Your task to perform on an android device: Go to wifi settings Image 0: 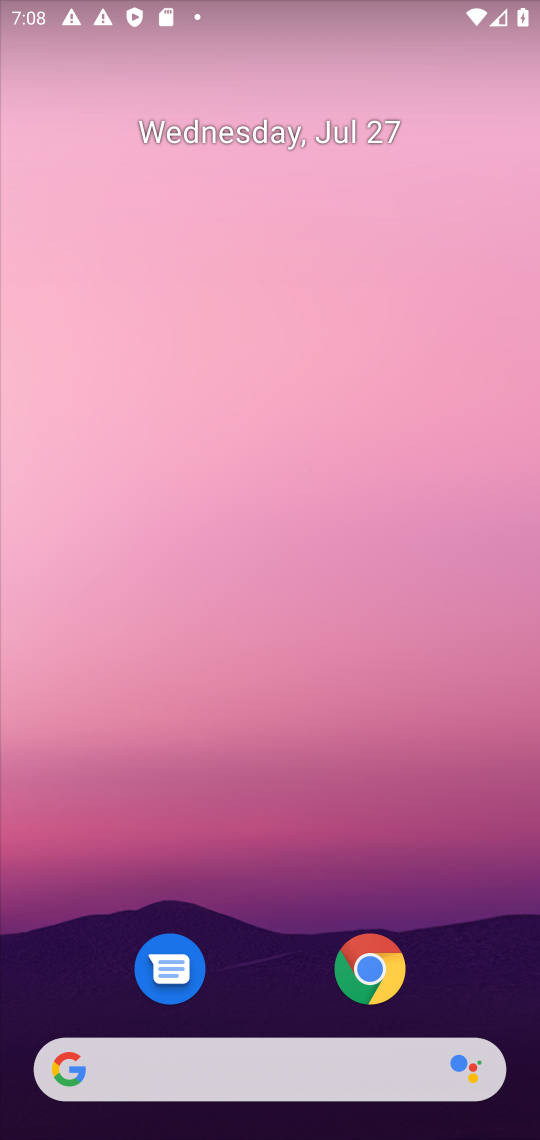
Step 0: drag from (326, 884) to (294, 81)
Your task to perform on an android device: Go to wifi settings Image 1: 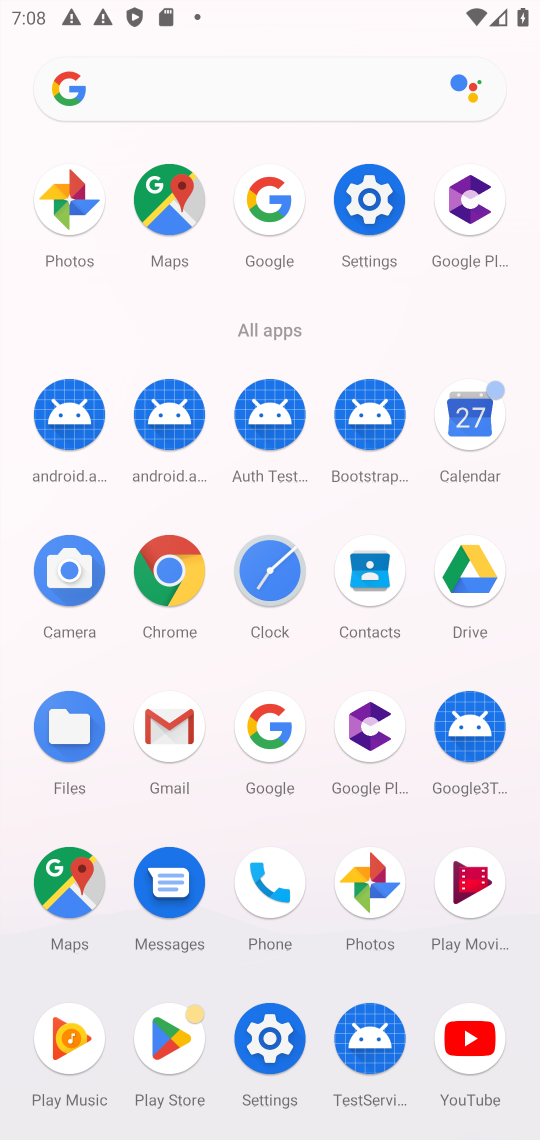
Step 1: click (285, 1042)
Your task to perform on an android device: Go to wifi settings Image 2: 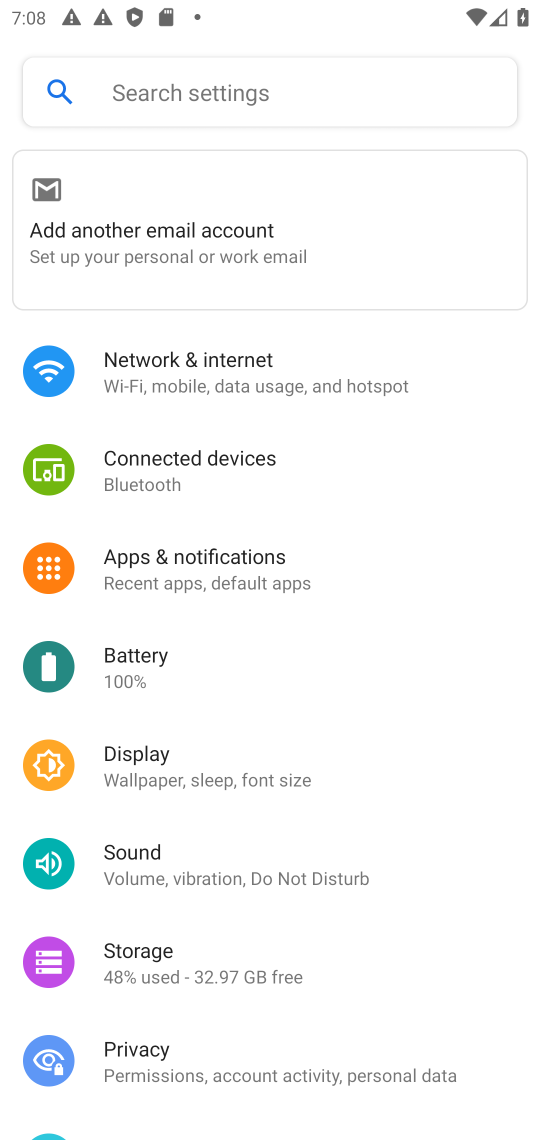
Step 2: click (193, 394)
Your task to perform on an android device: Go to wifi settings Image 3: 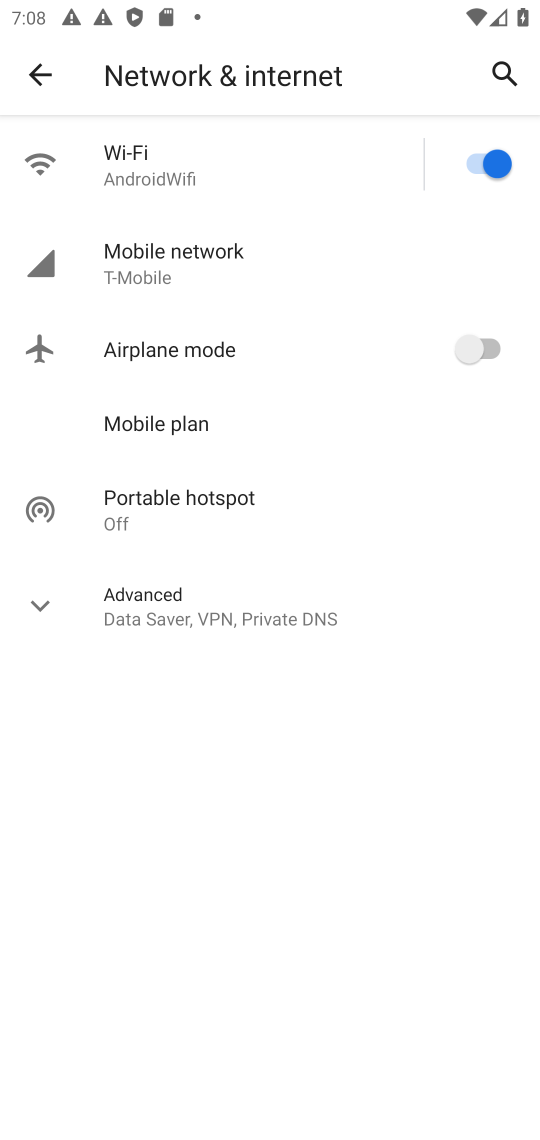
Step 3: click (186, 198)
Your task to perform on an android device: Go to wifi settings Image 4: 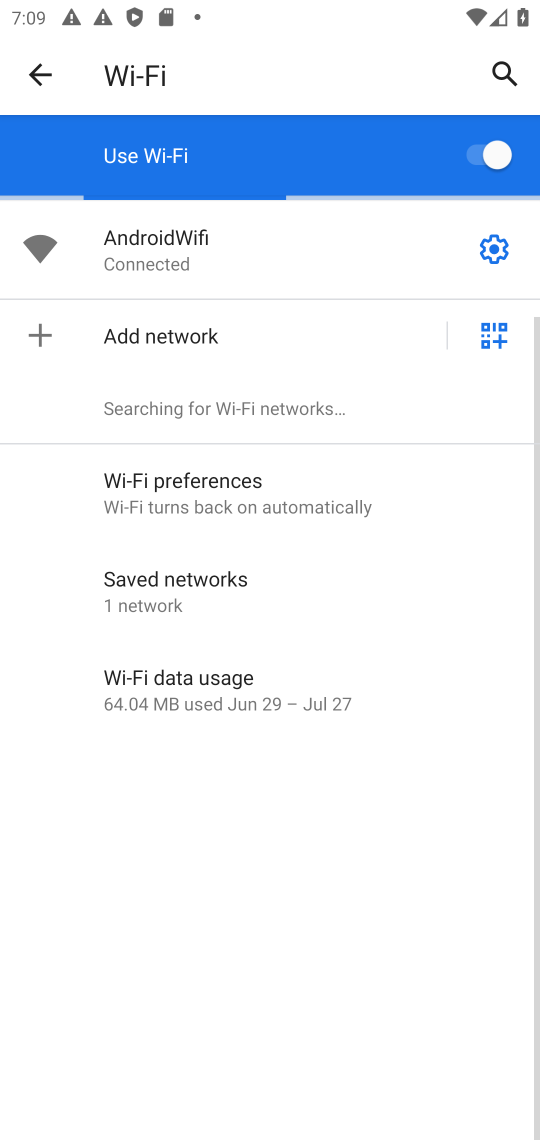
Step 4: task complete